Your task to perform on an android device: turn off improve location accuracy Image 0: 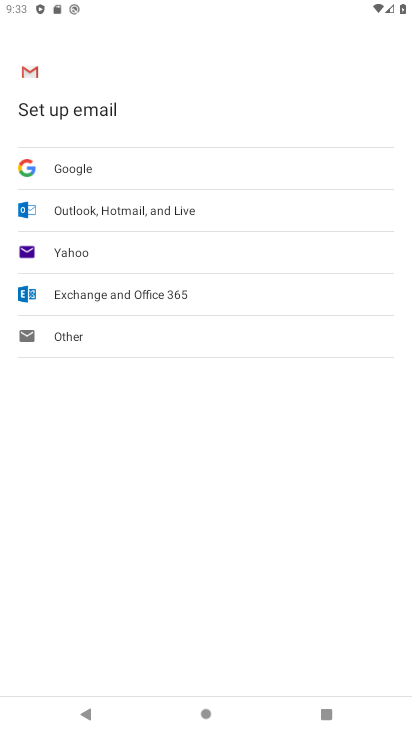
Step 0: press home button
Your task to perform on an android device: turn off improve location accuracy Image 1: 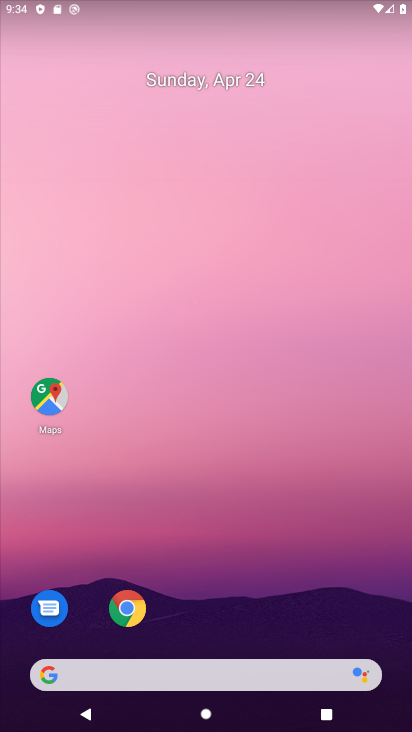
Step 1: drag from (230, 702) to (299, 133)
Your task to perform on an android device: turn off improve location accuracy Image 2: 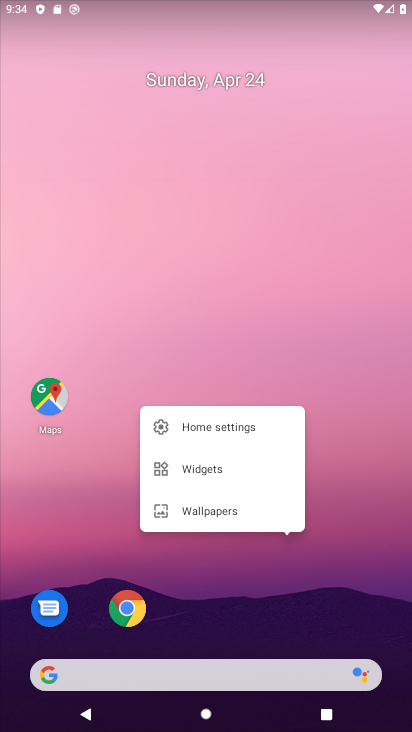
Step 2: click (324, 206)
Your task to perform on an android device: turn off improve location accuracy Image 3: 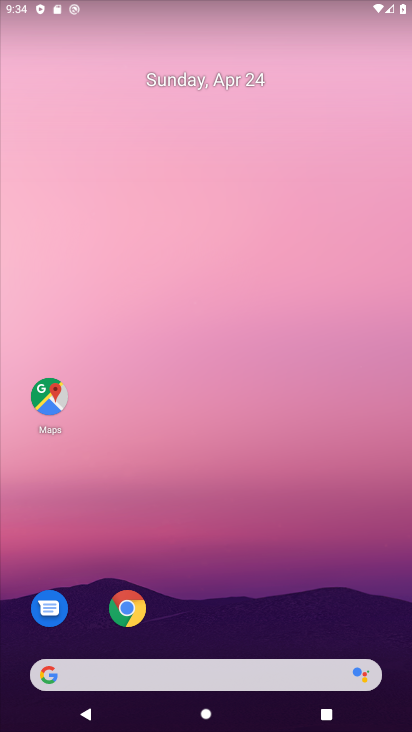
Step 3: drag from (239, 655) to (274, 192)
Your task to perform on an android device: turn off improve location accuracy Image 4: 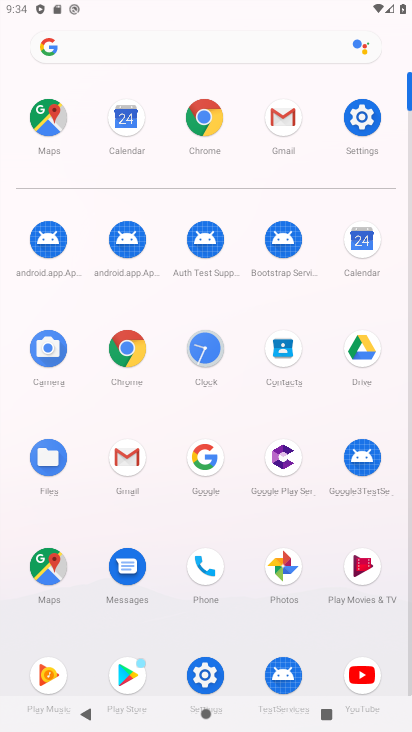
Step 4: click (361, 115)
Your task to perform on an android device: turn off improve location accuracy Image 5: 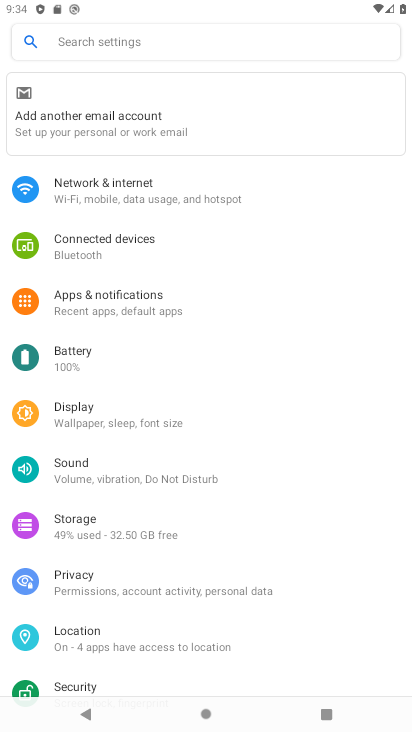
Step 5: click (109, 625)
Your task to perform on an android device: turn off improve location accuracy Image 6: 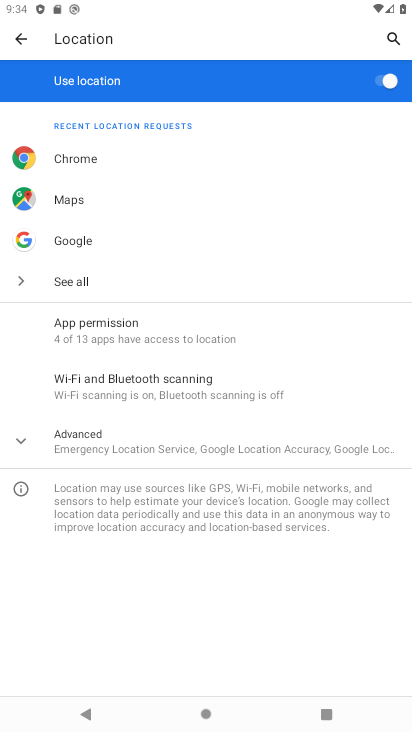
Step 6: click (47, 429)
Your task to perform on an android device: turn off improve location accuracy Image 7: 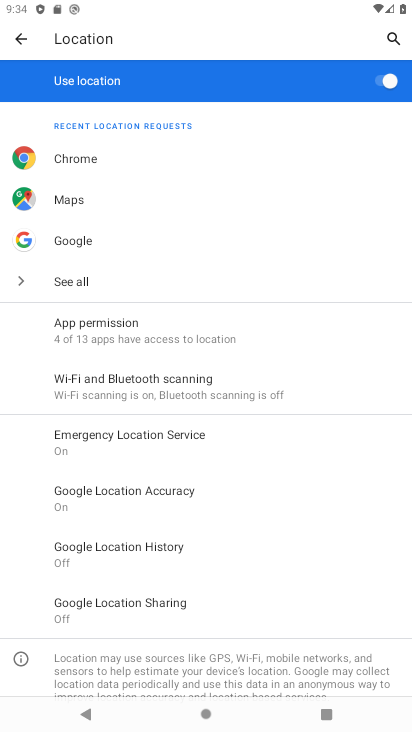
Step 7: click (146, 490)
Your task to perform on an android device: turn off improve location accuracy Image 8: 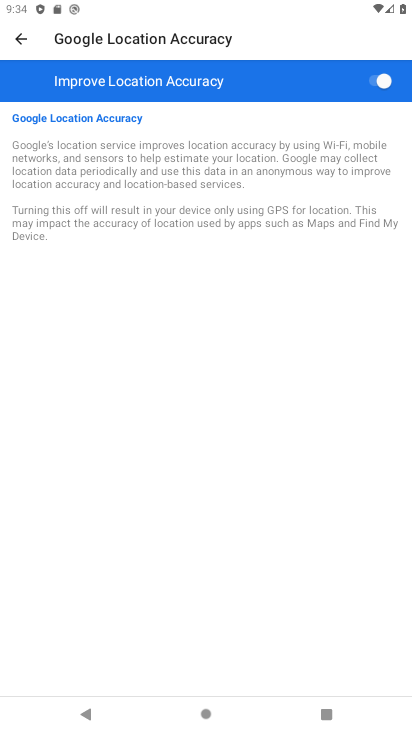
Step 8: click (390, 84)
Your task to perform on an android device: turn off improve location accuracy Image 9: 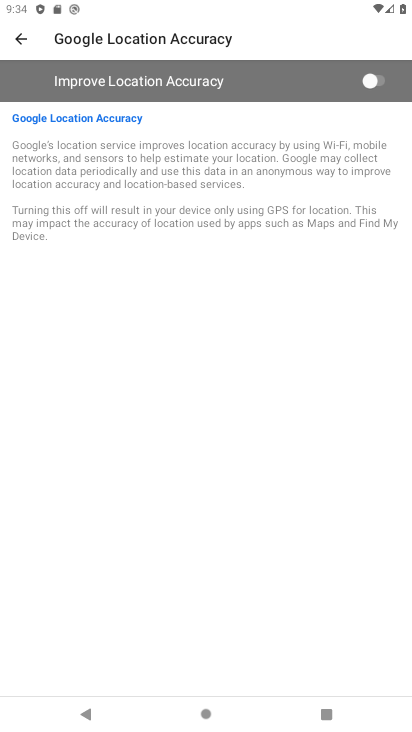
Step 9: task complete